Your task to perform on an android device: stop showing notifications on the lock screen Image 0: 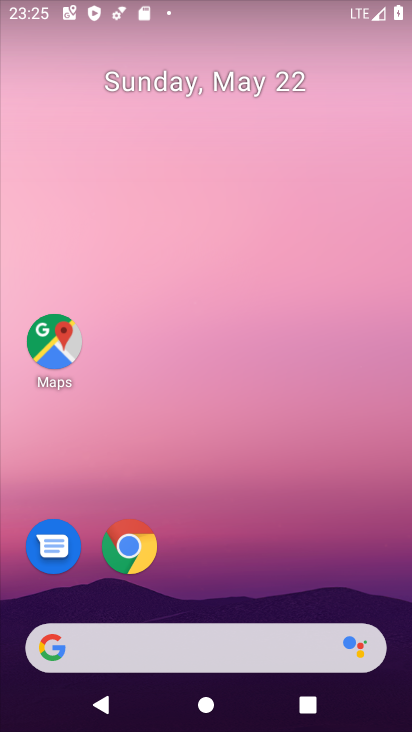
Step 0: drag from (209, 594) to (256, 101)
Your task to perform on an android device: stop showing notifications on the lock screen Image 1: 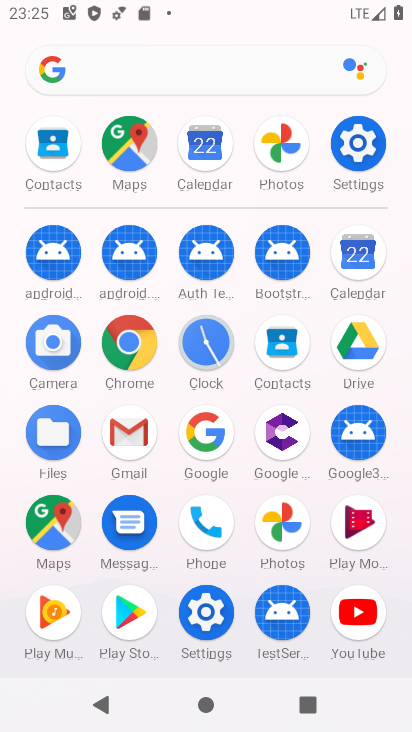
Step 1: click (350, 153)
Your task to perform on an android device: stop showing notifications on the lock screen Image 2: 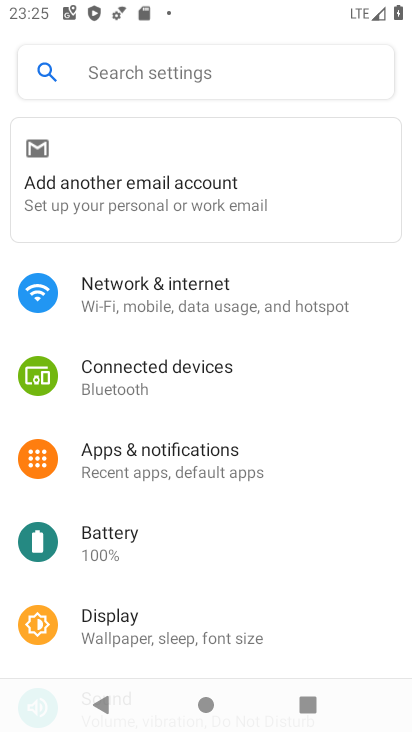
Step 2: click (187, 453)
Your task to perform on an android device: stop showing notifications on the lock screen Image 3: 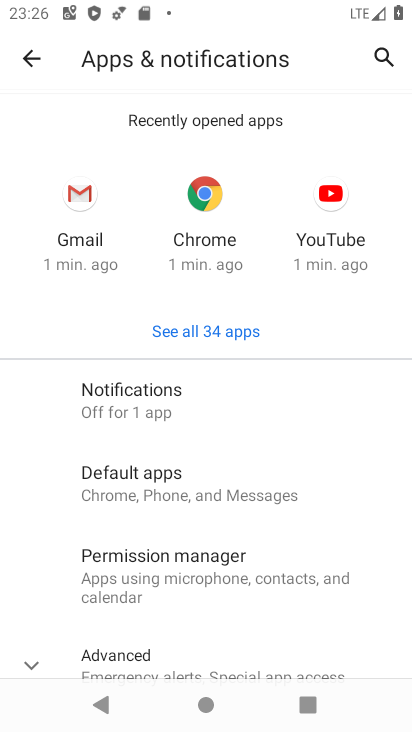
Step 3: click (165, 401)
Your task to perform on an android device: stop showing notifications on the lock screen Image 4: 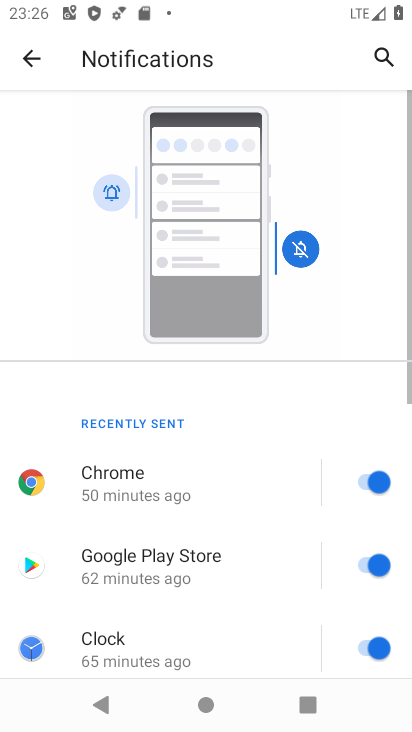
Step 4: drag from (225, 553) to (312, 179)
Your task to perform on an android device: stop showing notifications on the lock screen Image 5: 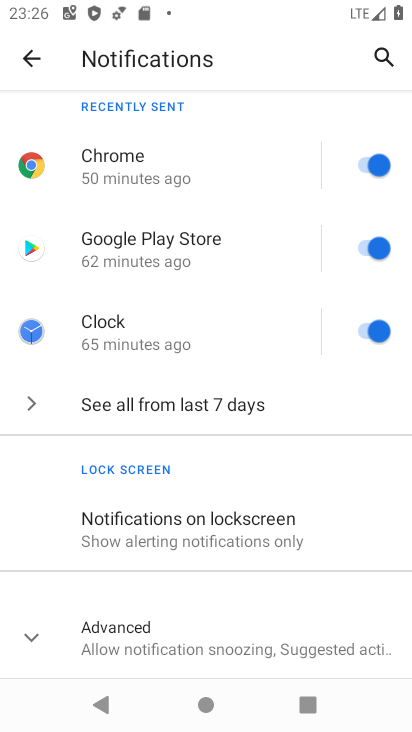
Step 5: click (196, 524)
Your task to perform on an android device: stop showing notifications on the lock screen Image 6: 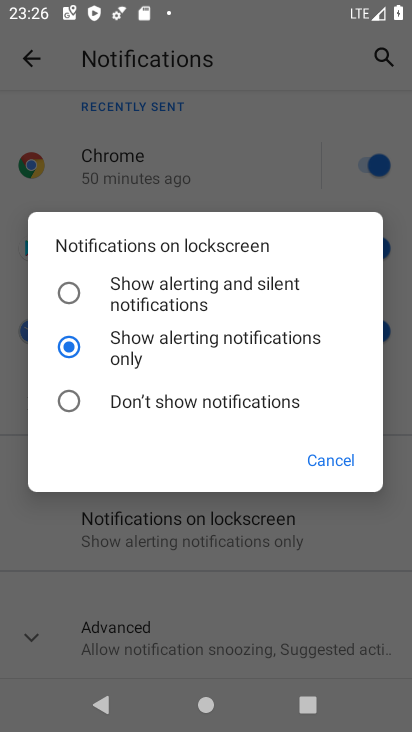
Step 6: click (79, 394)
Your task to perform on an android device: stop showing notifications on the lock screen Image 7: 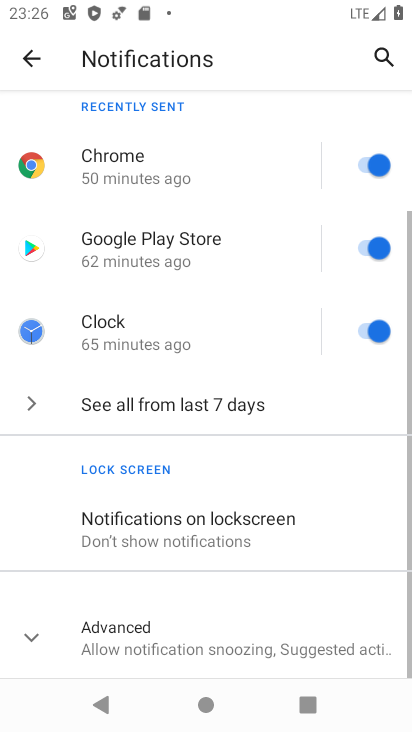
Step 7: task complete